Your task to perform on an android device: open app "Yahoo Mail" (install if not already installed), go to login, and select forgot password Image 0: 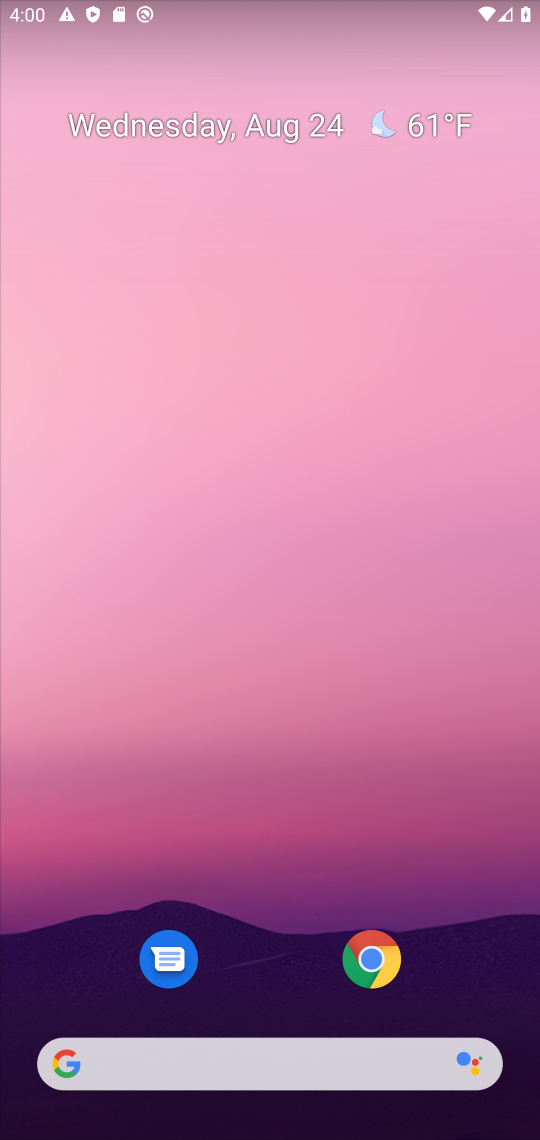
Step 0: drag from (290, 985) to (337, 177)
Your task to perform on an android device: open app "Yahoo Mail" (install if not already installed), go to login, and select forgot password Image 1: 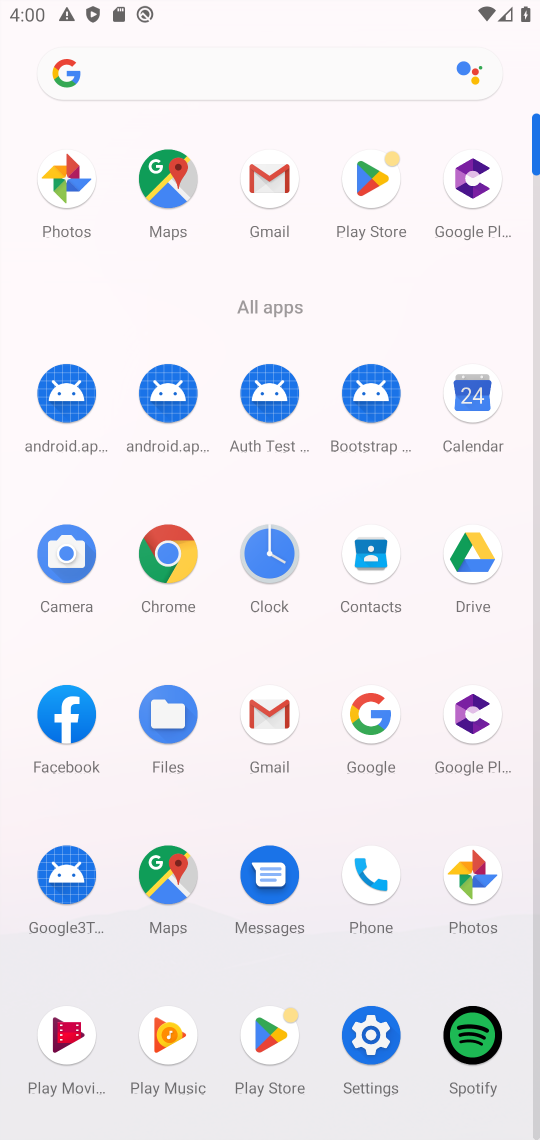
Step 1: click (365, 226)
Your task to perform on an android device: open app "Yahoo Mail" (install if not already installed), go to login, and select forgot password Image 2: 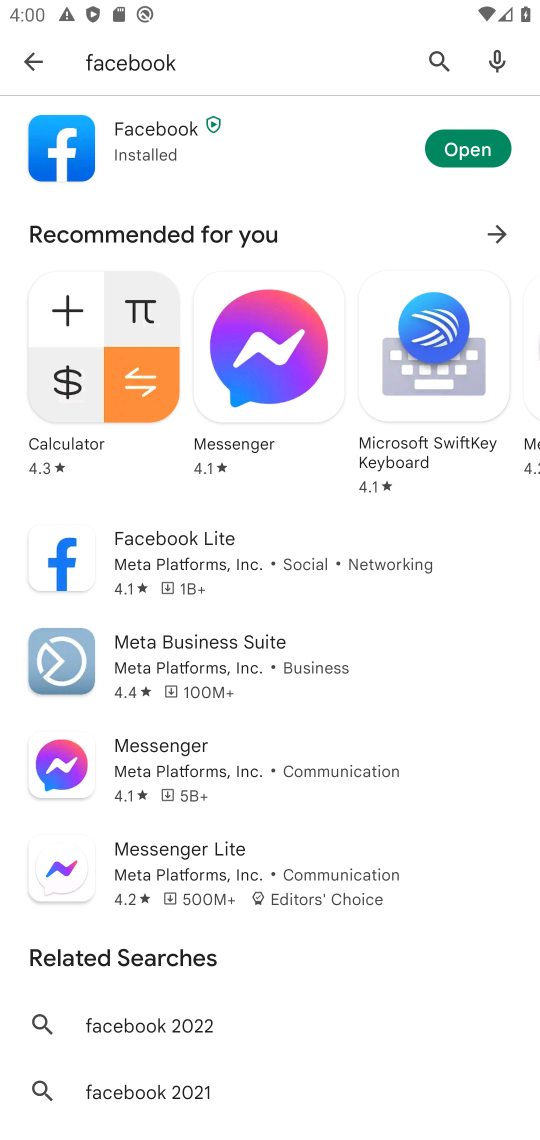
Step 2: click (438, 65)
Your task to perform on an android device: open app "Yahoo Mail" (install if not already installed), go to login, and select forgot password Image 3: 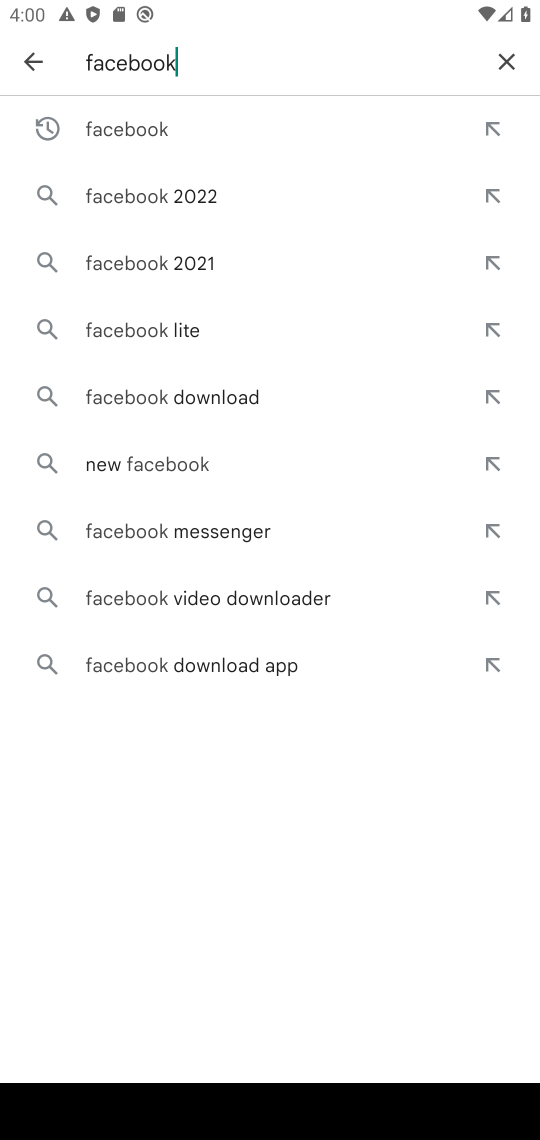
Step 3: click (506, 78)
Your task to perform on an android device: open app "Yahoo Mail" (install if not already installed), go to login, and select forgot password Image 4: 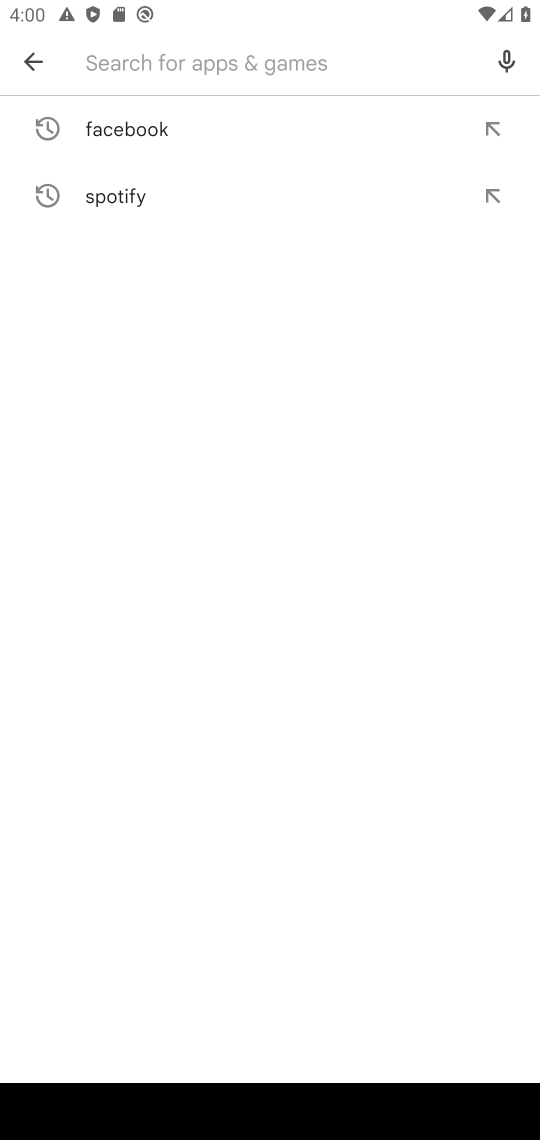
Step 4: type "adobe"
Your task to perform on an android device: open app "Yahoo Mail" (install if not already installed), go to login, and select forgot password Image 5: 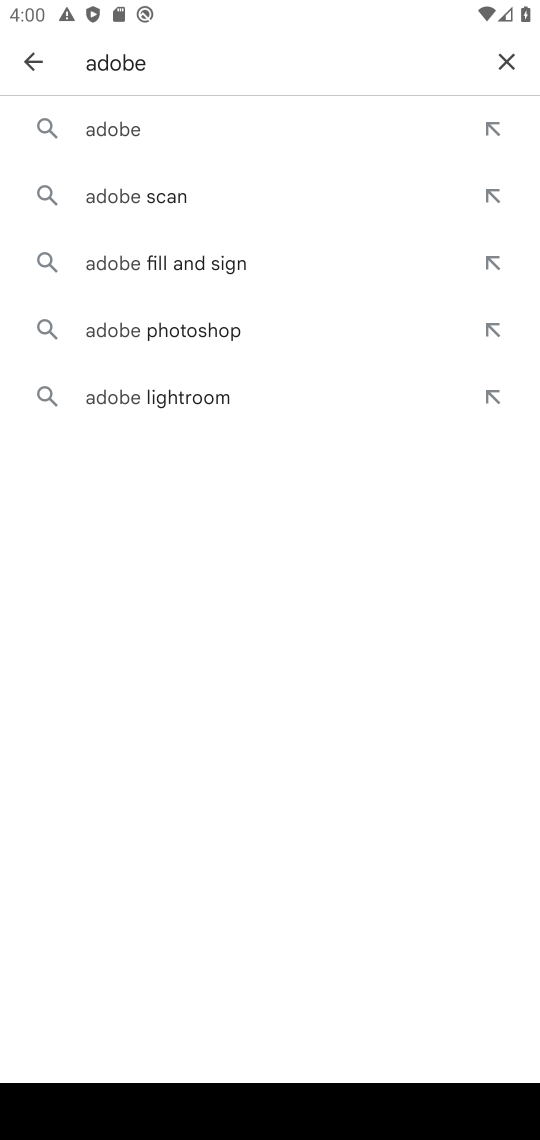
Step 5: click (506, 72)
Your task to perform on an android device: open app "Yahoo Mail" (install if not already installed), go to login, and select forgot password Image 6: 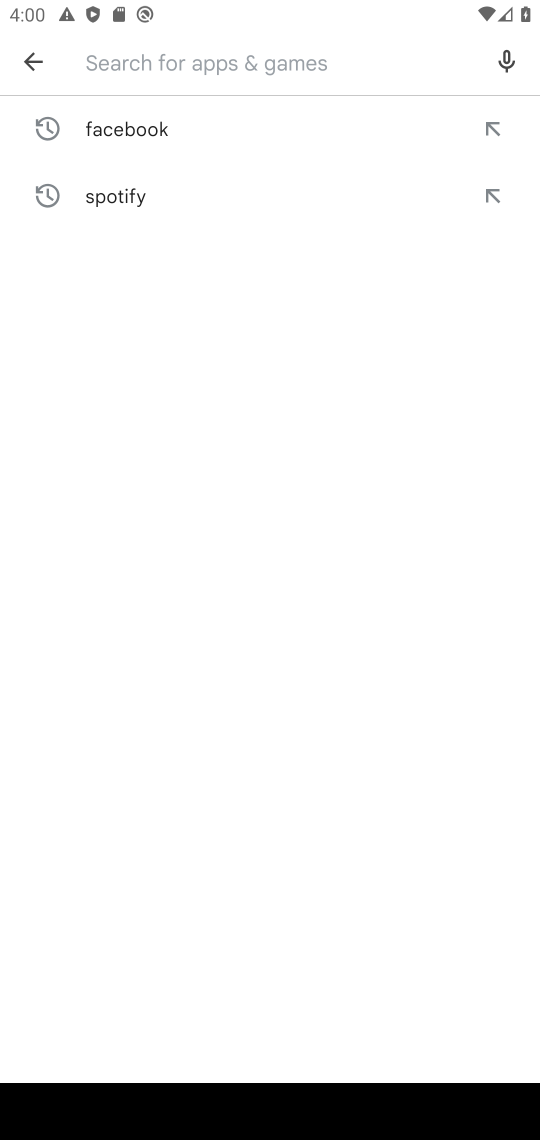
Step 6: type "yahoo"
Your task to perform on an android device: open app "Yahoo Mail" (install if not already installed), go to login, and select forgot password Image 7: 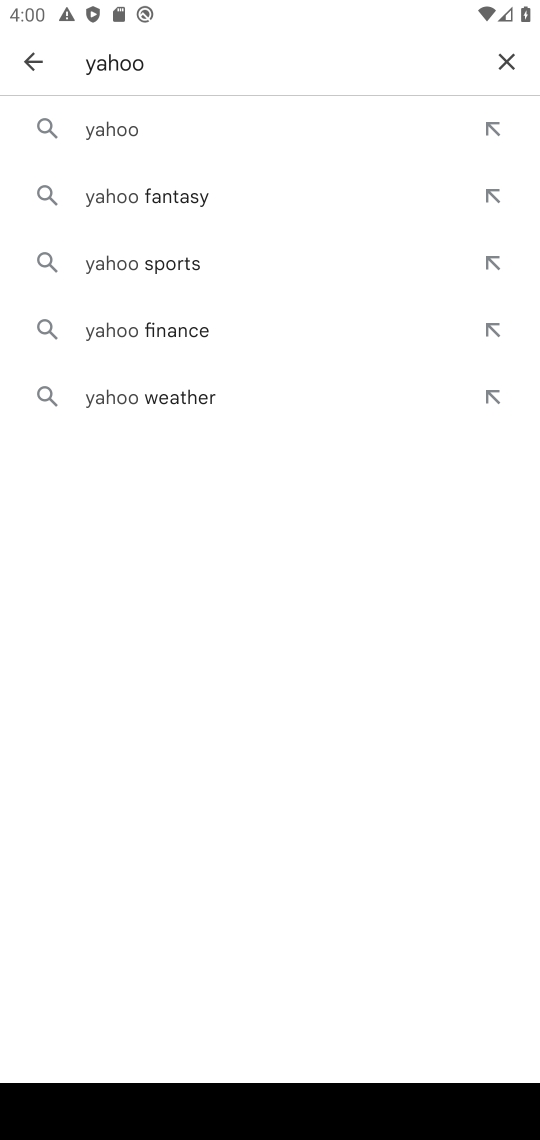
Step 7: click (181, 160)
Your task to perform on an android device: open app "Yahoo Mail" (install if not already installed), go to login, and select forgot password Image 8: 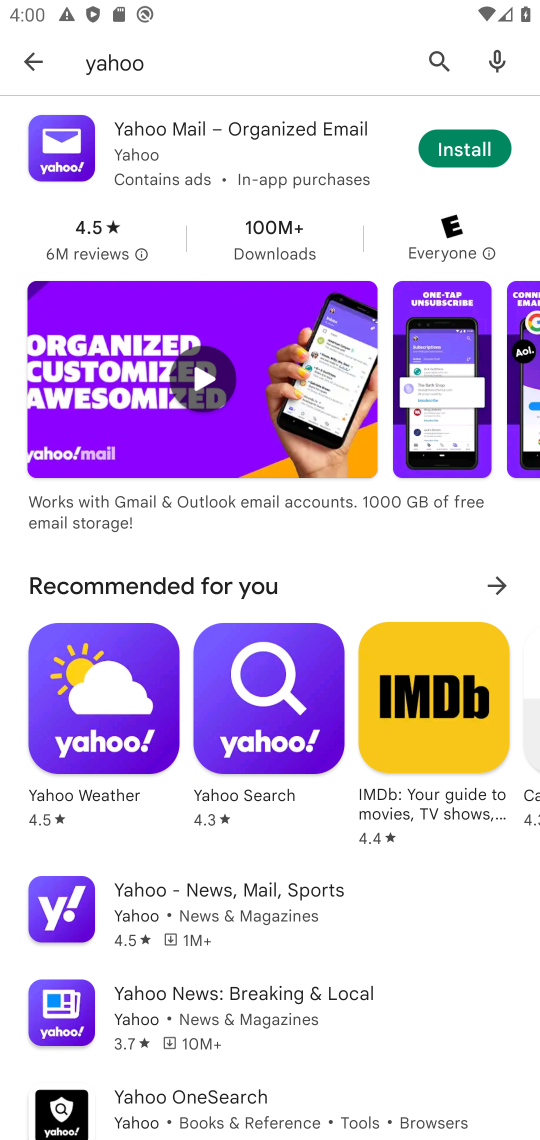
Step 8: click (443, 155)
Your task to perform on an android device: open app "Yahoo Mail" (install if not already installed), go to login, and select forgot password Image 9: 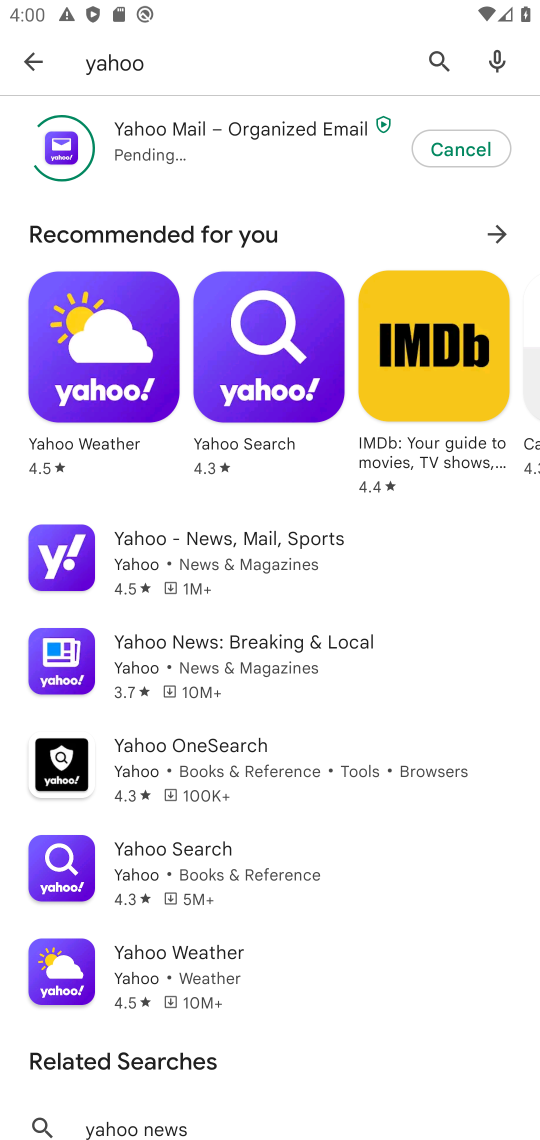
Step 9: task complete